Your task to perform on an android device: What's on my calendar today? Image 0: 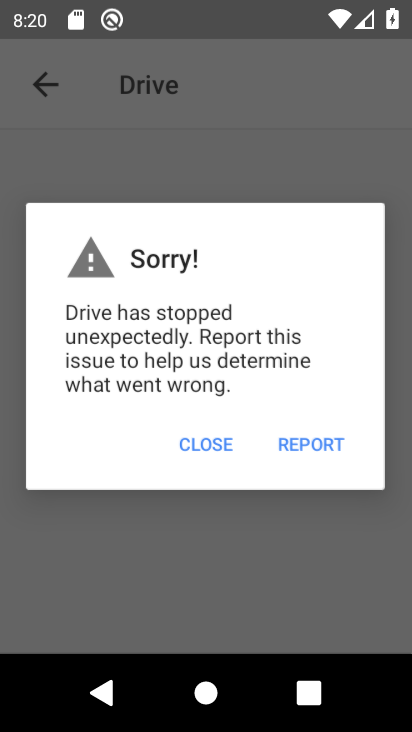
Step 0: drag from (213, 527) to (229, 111)
Your task to perform on an android device: What's on my calendar today? Image 1: 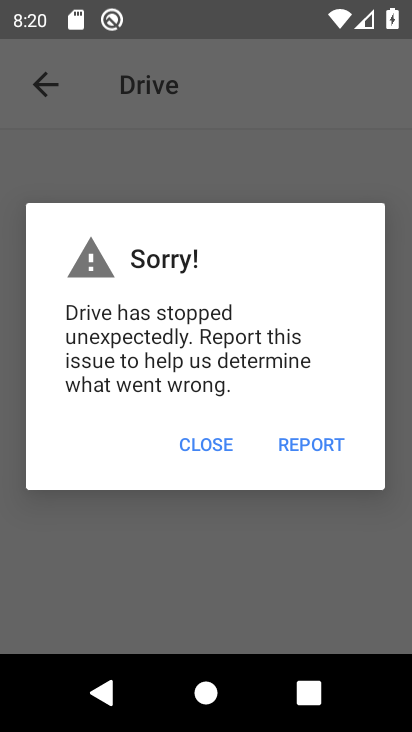
Step 1: press home button
Your task to perform on an android device: What's on my calendar today? Image 2: 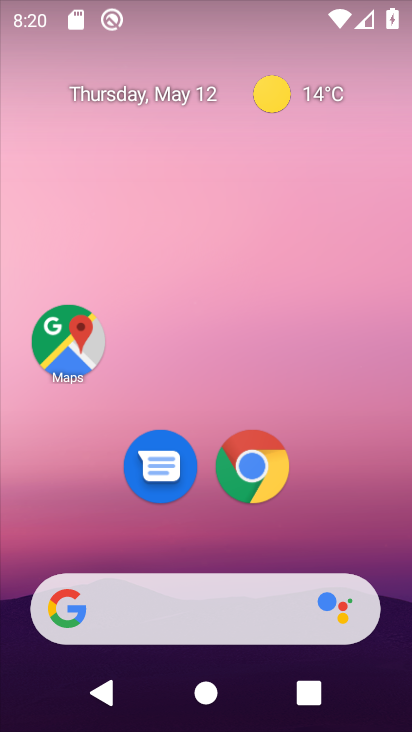
Step 2: drag from (207, 534) to (229, 16)
Your task to perform on an android device: What's on my calendar today? Image 3: 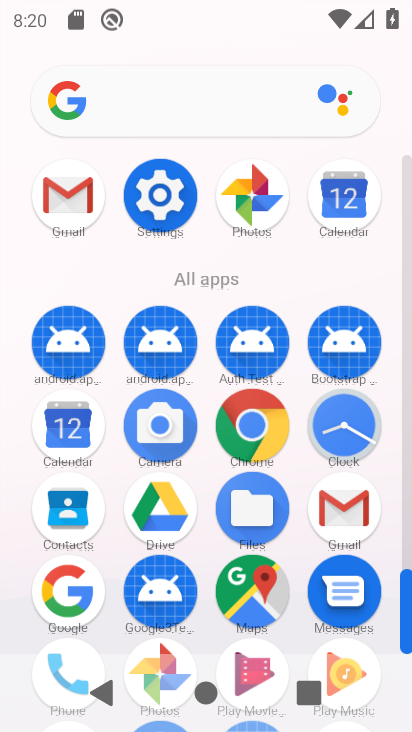
Step 3: click (63, 425)
Your task to perform on an android device: What's on my calendar today? Image 4: 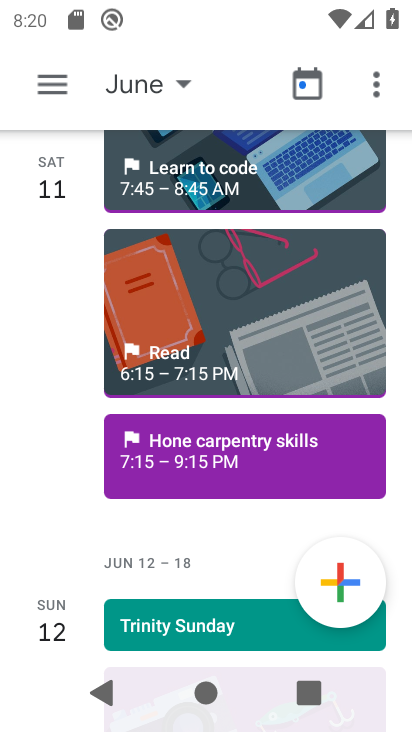
Step 4: click (183, 86)
Your task to perform on an android device: What's on my calendar today? Image 5: 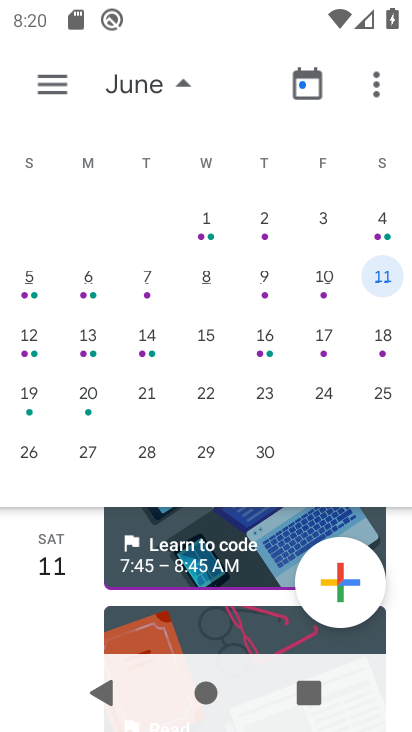
Step 5: drag from (52, 348) to (379, 375)
Your task to perform on an android device: What's on my calendar today? Image 6: 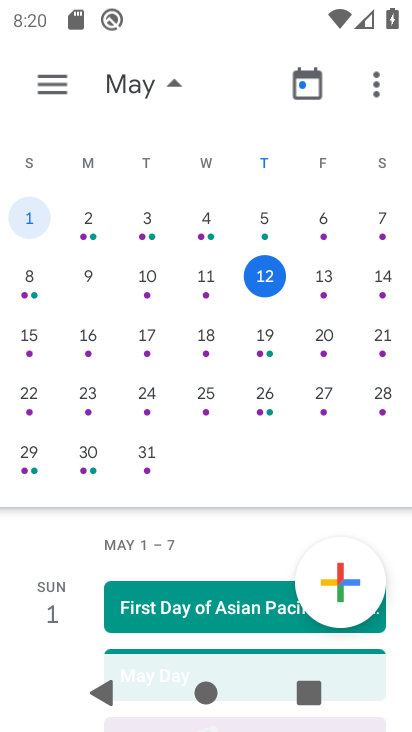
Step 6: click (266, 273)
Your task to perform on an android device: What's on my calendar today? Image 7: 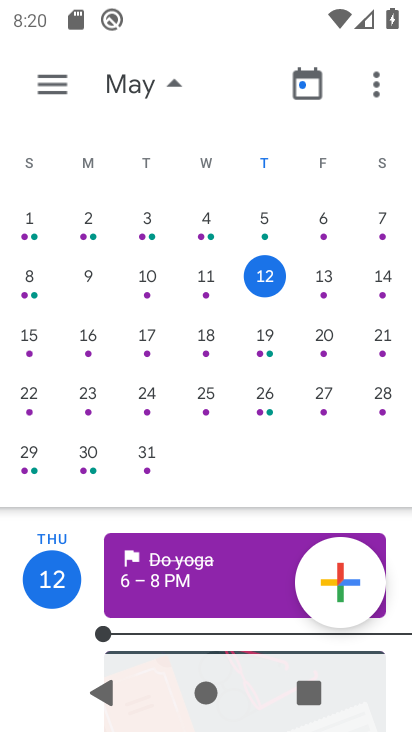
Step 7: click (269, 271)
Your task to perform on an android device: What's on my calendar today? Image 8: 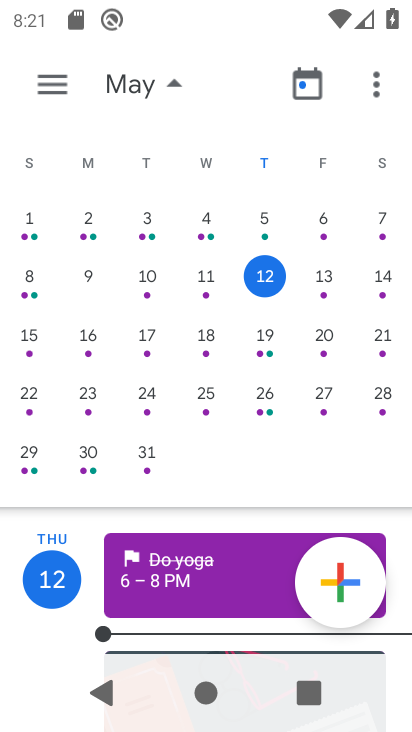
Step 8: click (171, 78)
Your task to perform on an android device: What's on my calendar today? Image 9: 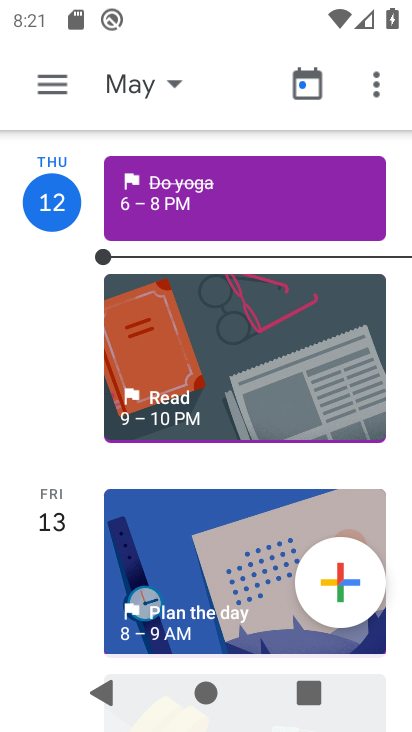
Step 9: click (55, 262)
Your task to perform on an android device: What's on my calendar today? Image 10: 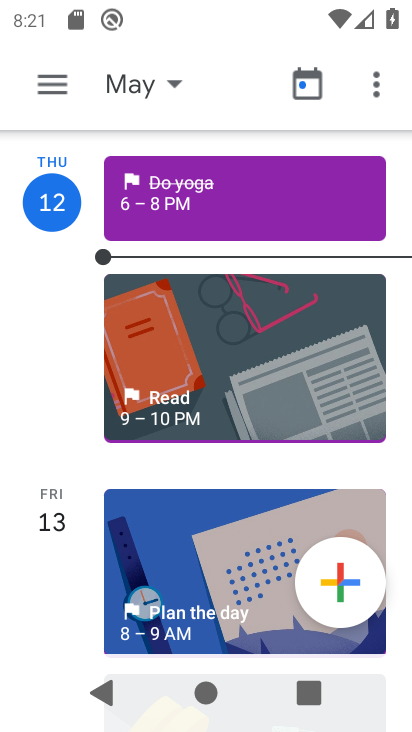
Step 10: click (68, 255)
Your task to perform on an android device: What's on my calendar today? Image 11: 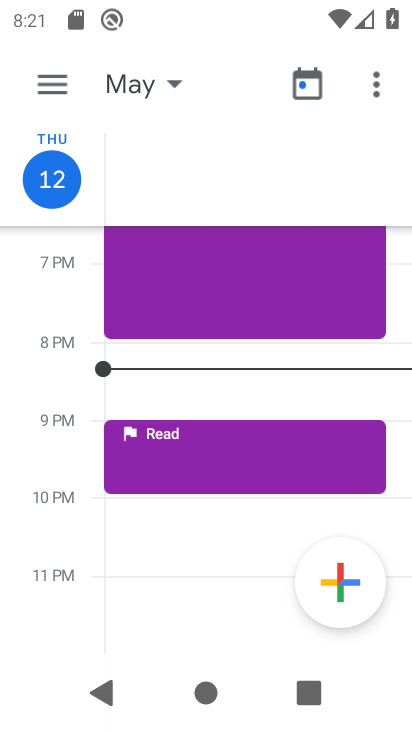
Step 11: task complete